Your task to perform on an android device: find which apps use the phone's location Image 0: 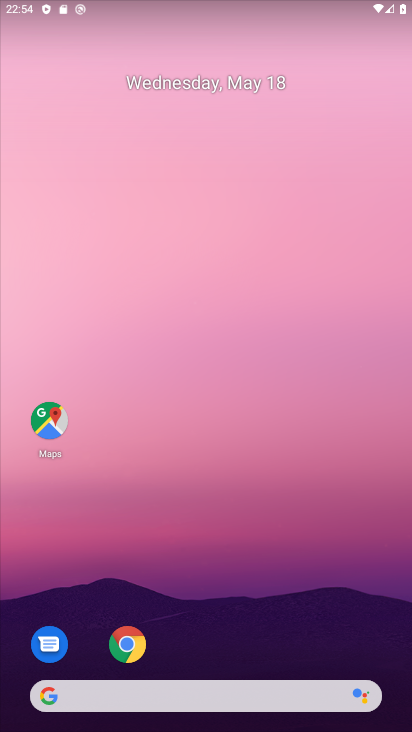
Step 0: drag from (275, 639) to (245, 191)
Your task to perform on an android device: find which apps use the phone's location Image 1: 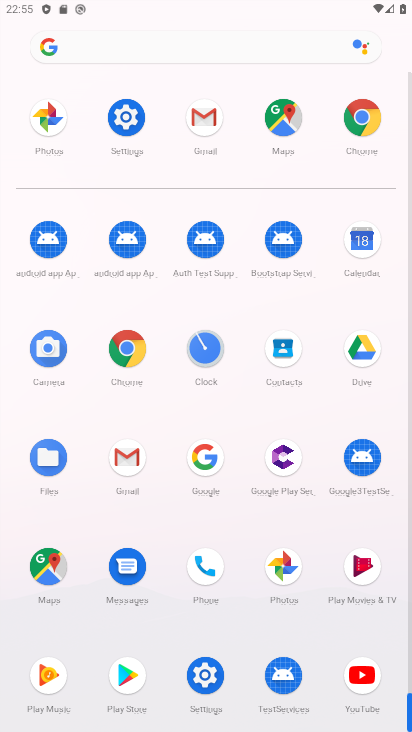
Step 1: click (127, 113)
Your task to perform on an android device: find which apps use the phone's location Image 2: 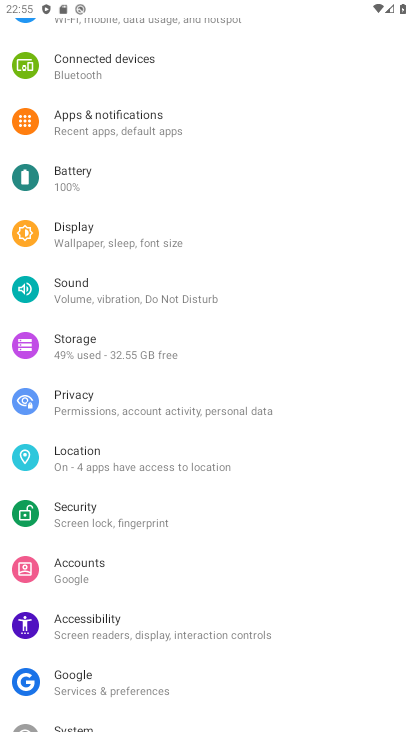
Step 2: drag from (231, 537) to (296, 341)
Your task to perform on an android device: find which apps use the phone's location Image 3: 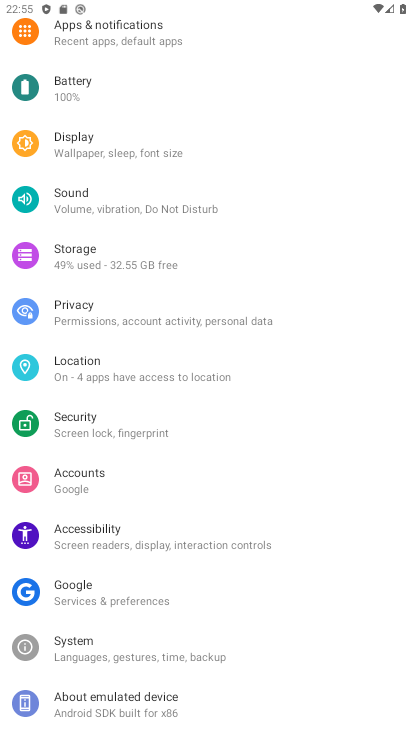
Step 3: click (163, 365)
Your task to perform on an android device: find which apps use the phone's location Image 4: 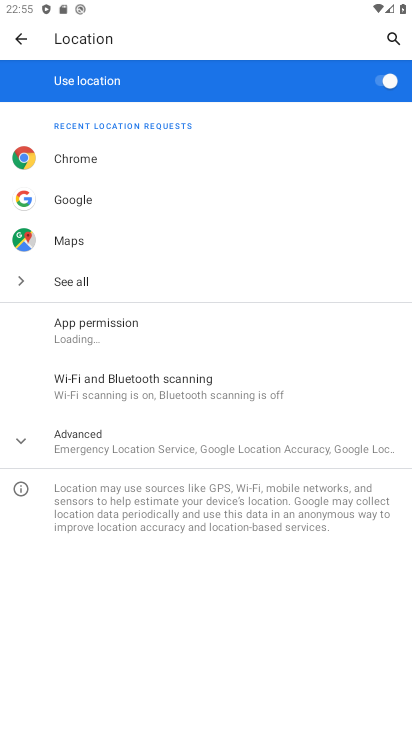
Step 4: click (143, 322)
Your task to perform on an android device: find which apps use the phone's location Image 5: 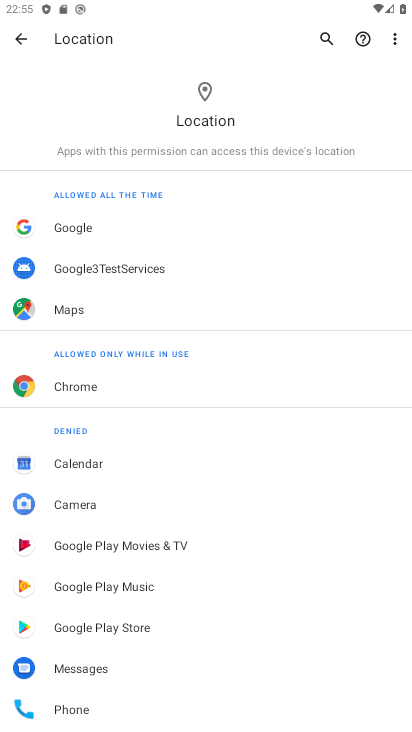
Step 5: task complete